Your task to perform on an android device: turn on airplane mode Image 0: 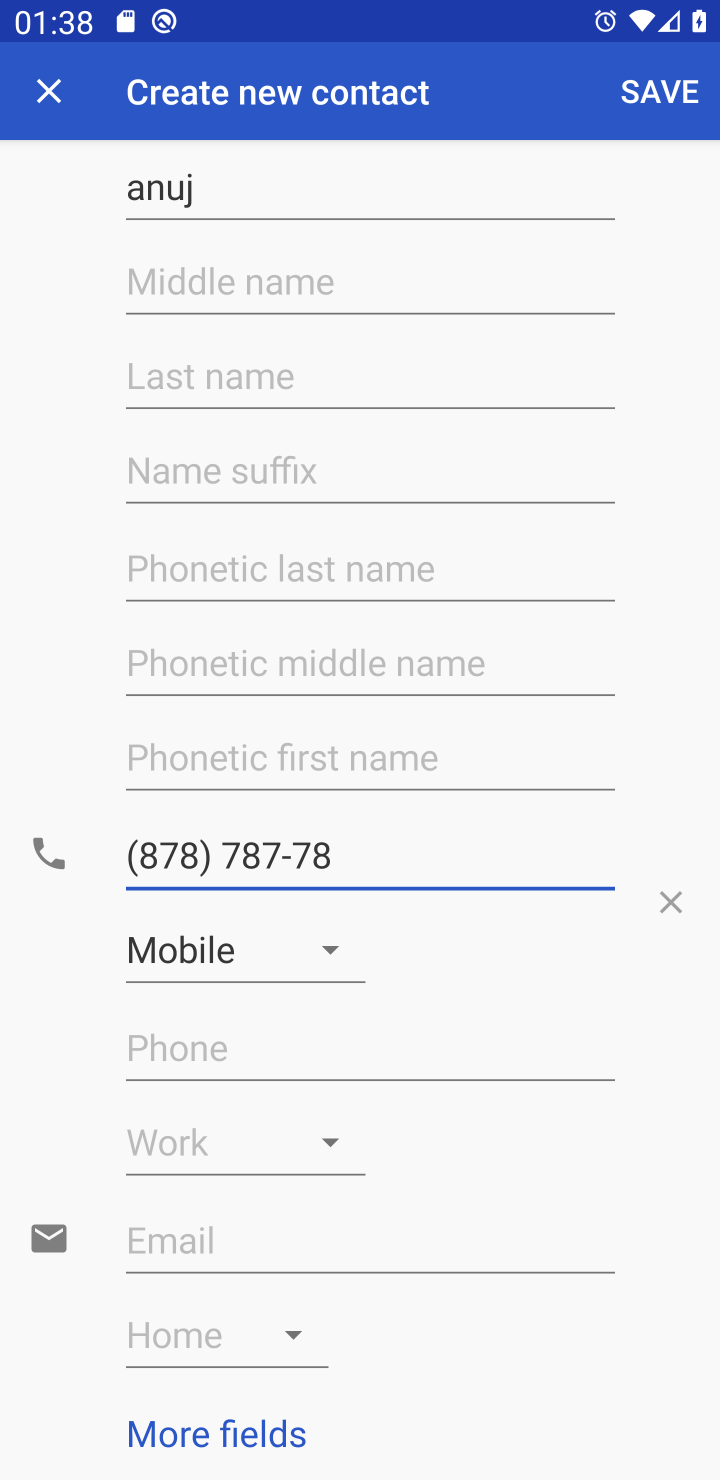
Step 0: click (76, 83)
Your task to perform on an android device: turn on airplane mode Image 1: 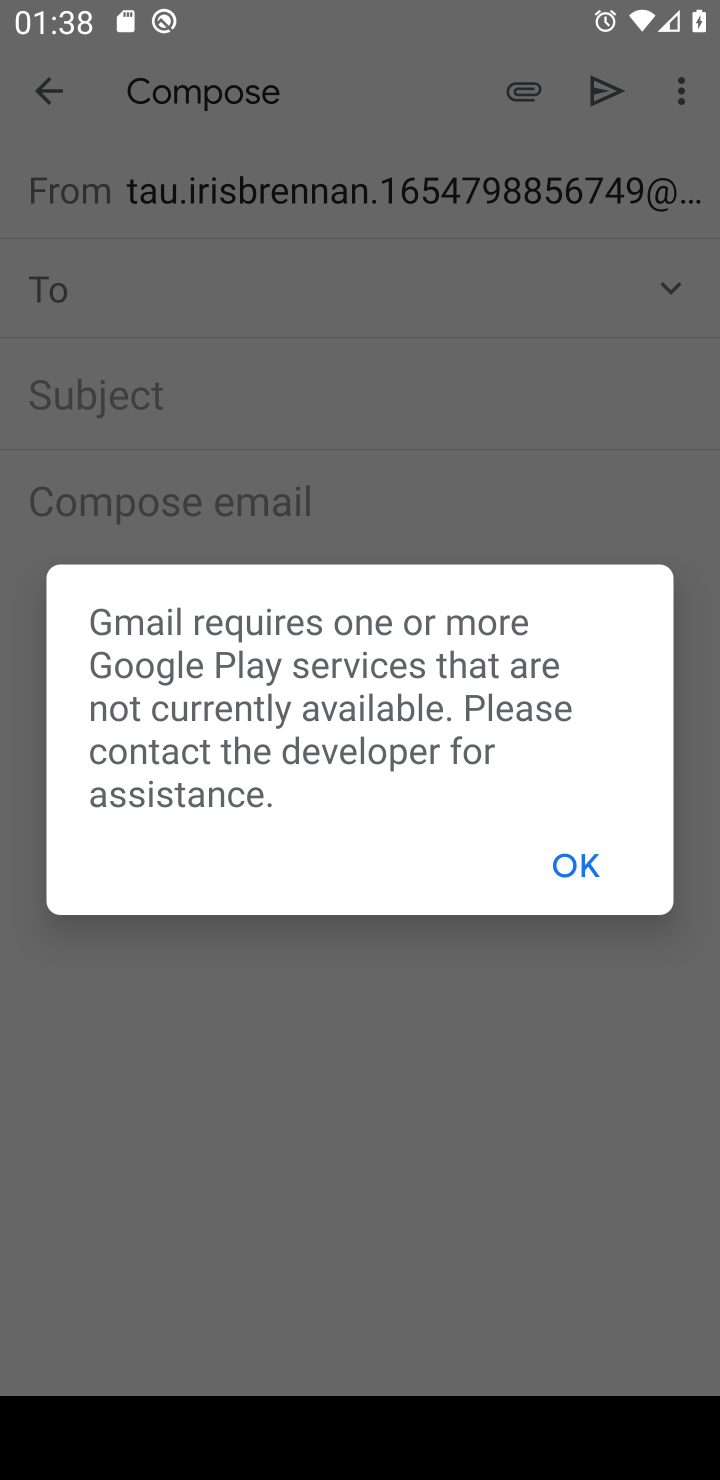
Step 1: press home button
Your task to perform on an android device: turn on airplane mode Image 2: 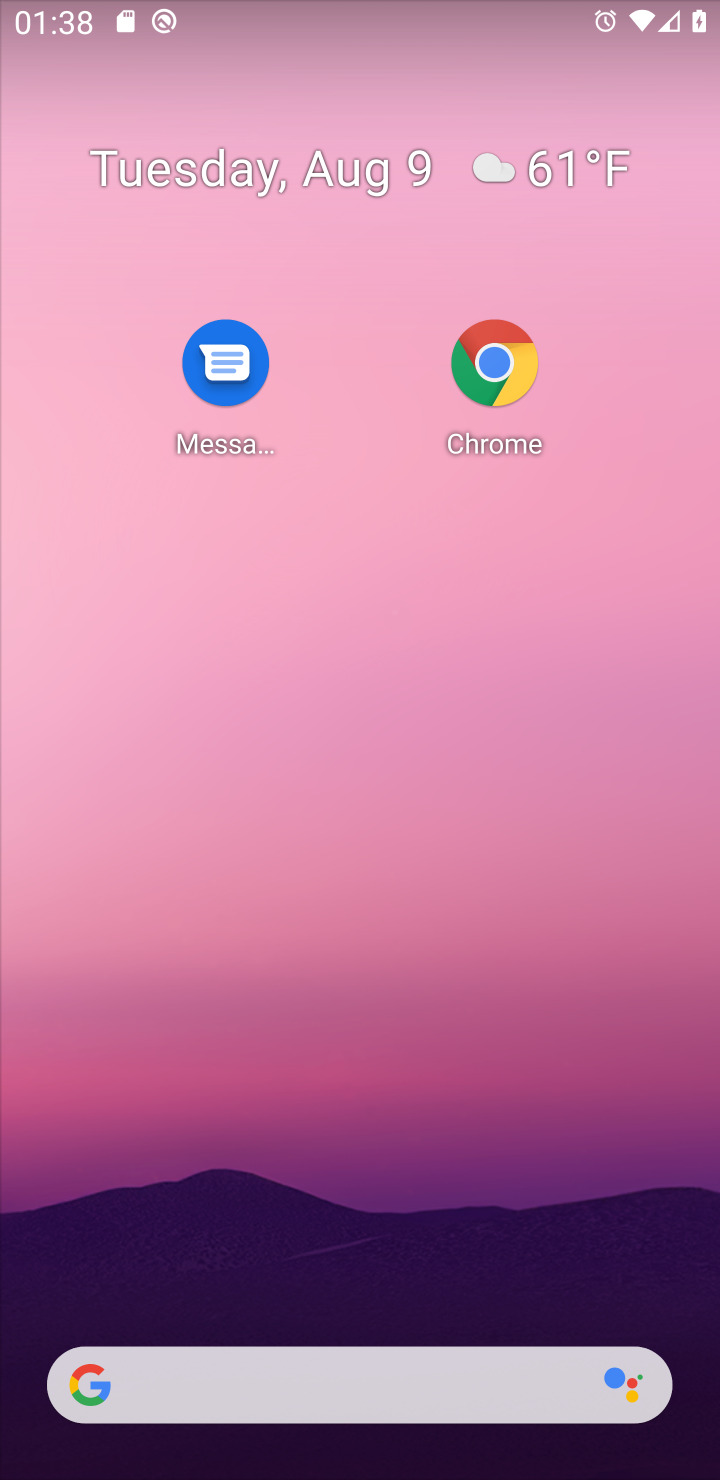
Step 2: drag from (364, 997) to (468, 281)
Your task to perform on an android device: turn on airplane mode Image 3: 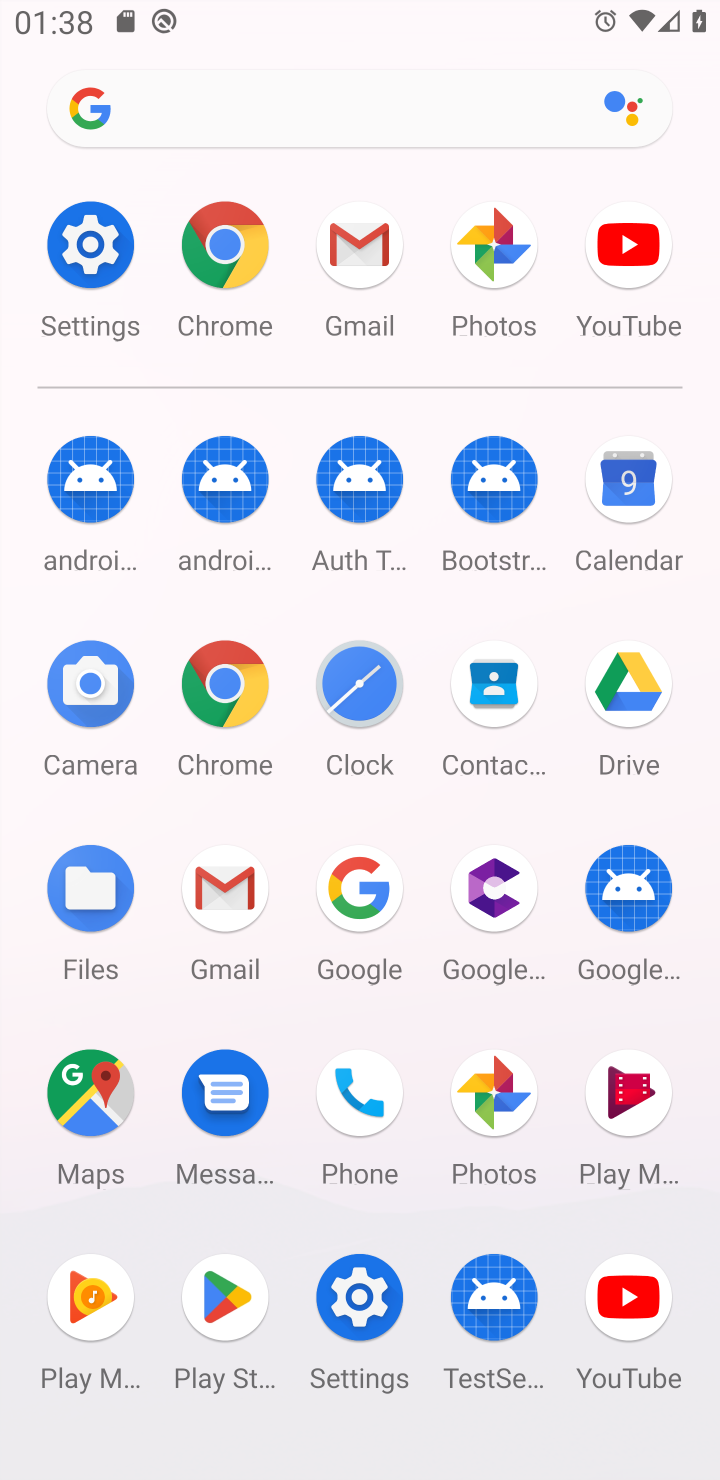
Step 3: click (87, 226)
Your task to perform on an android device: turn on airplane mode Image 4: 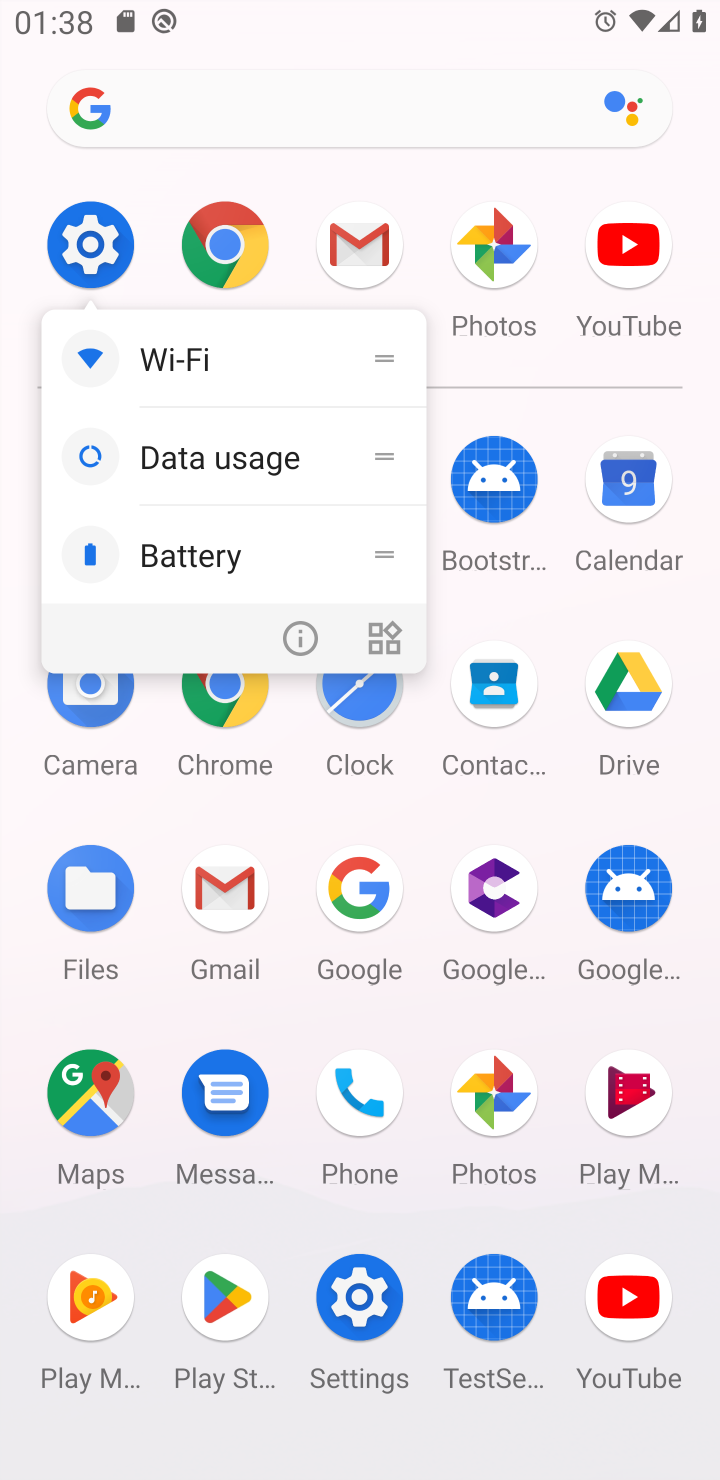
Step 4: click (95, 224)
Your task to perform on an android device: turn on airplane mode Image 5: 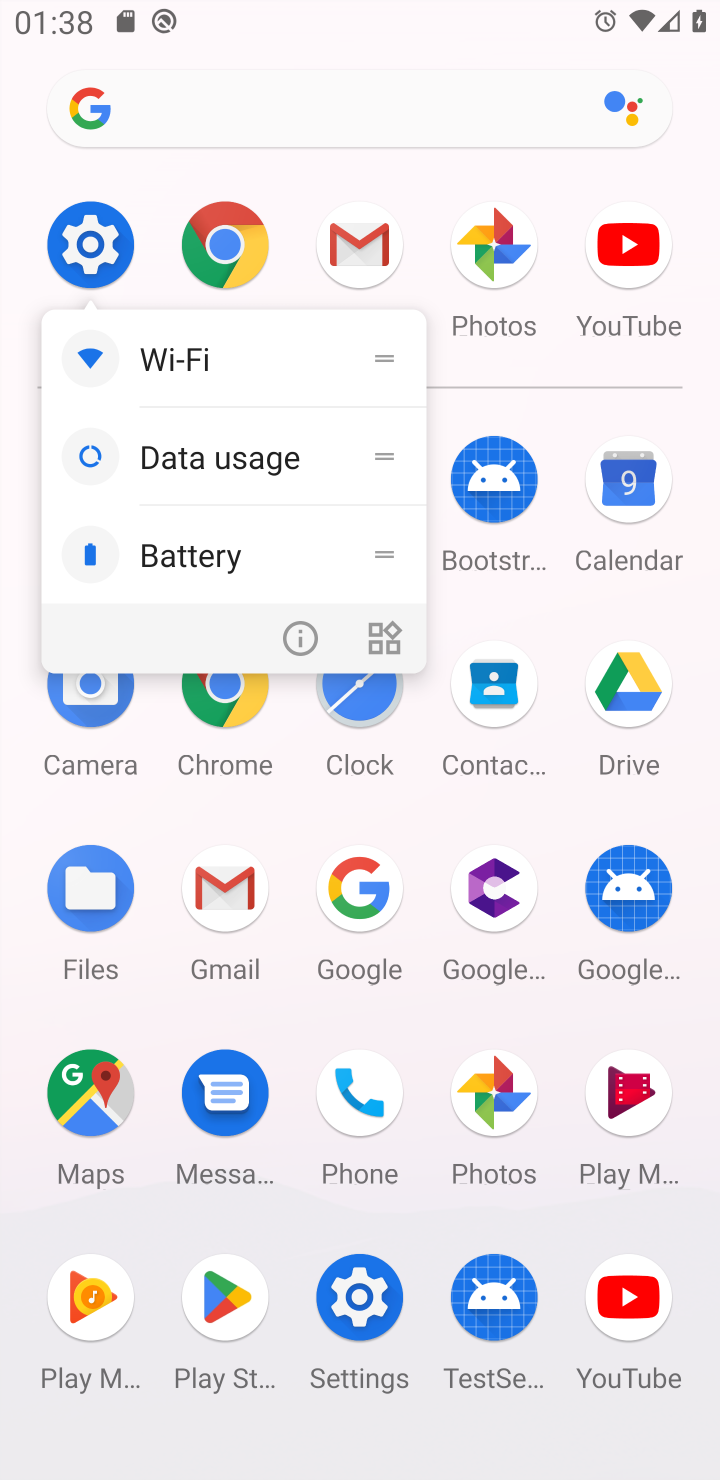
Step 5: click (96, 258)
Your task to perform on an android device: turn on airplane mode Image 6: 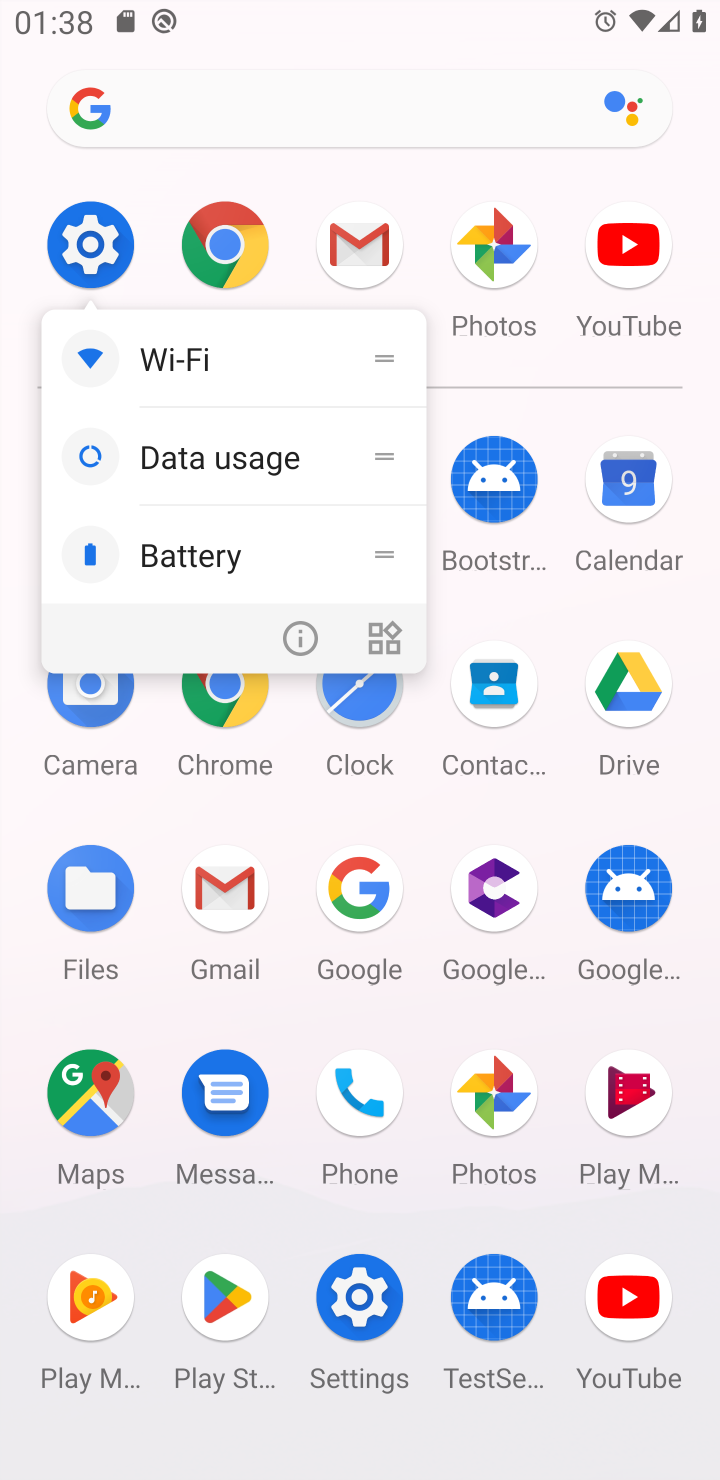
Step 6: click (96, 258)
Your task to perform on an android device: turn on airplane mode Image 7: 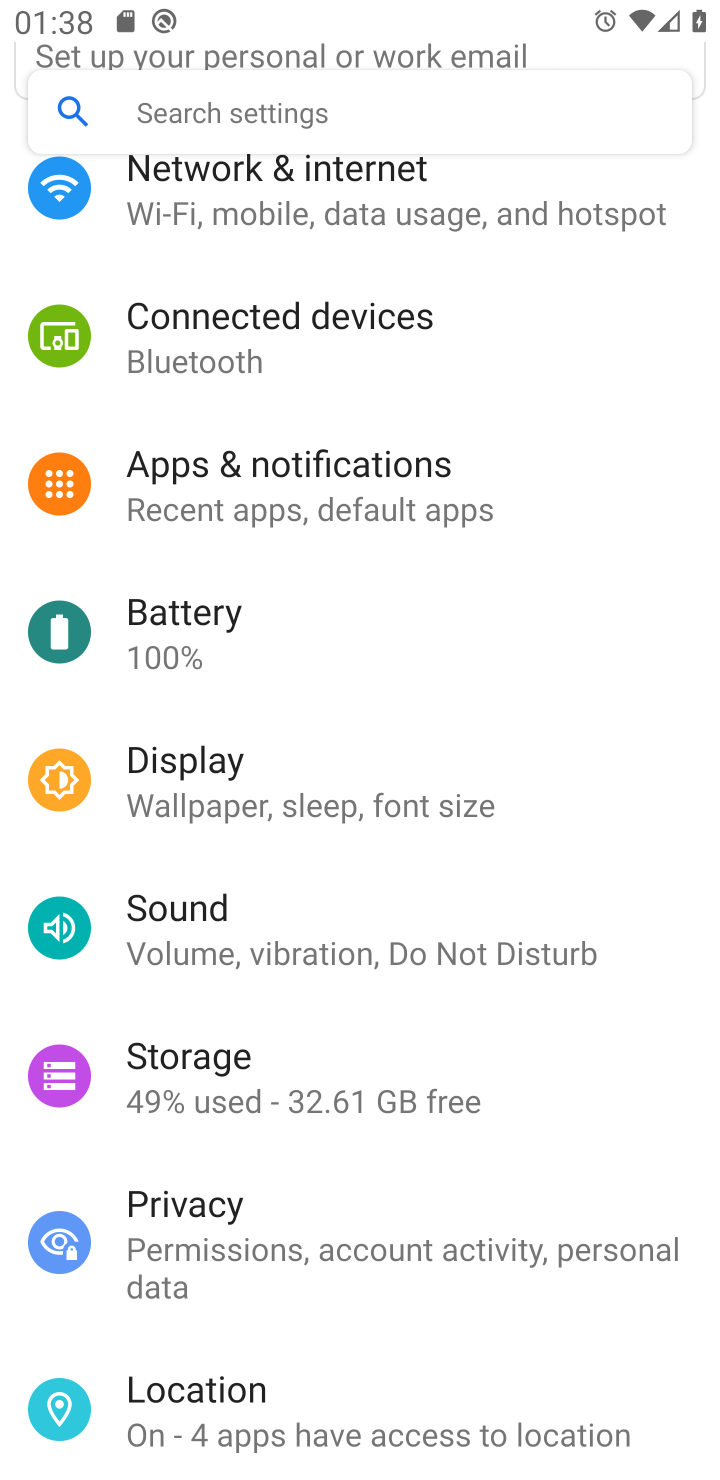
Step 7: drag from (209, 456) to (209, 1113)
Your task to perform on an android device: turn on airplane mode Image 8: 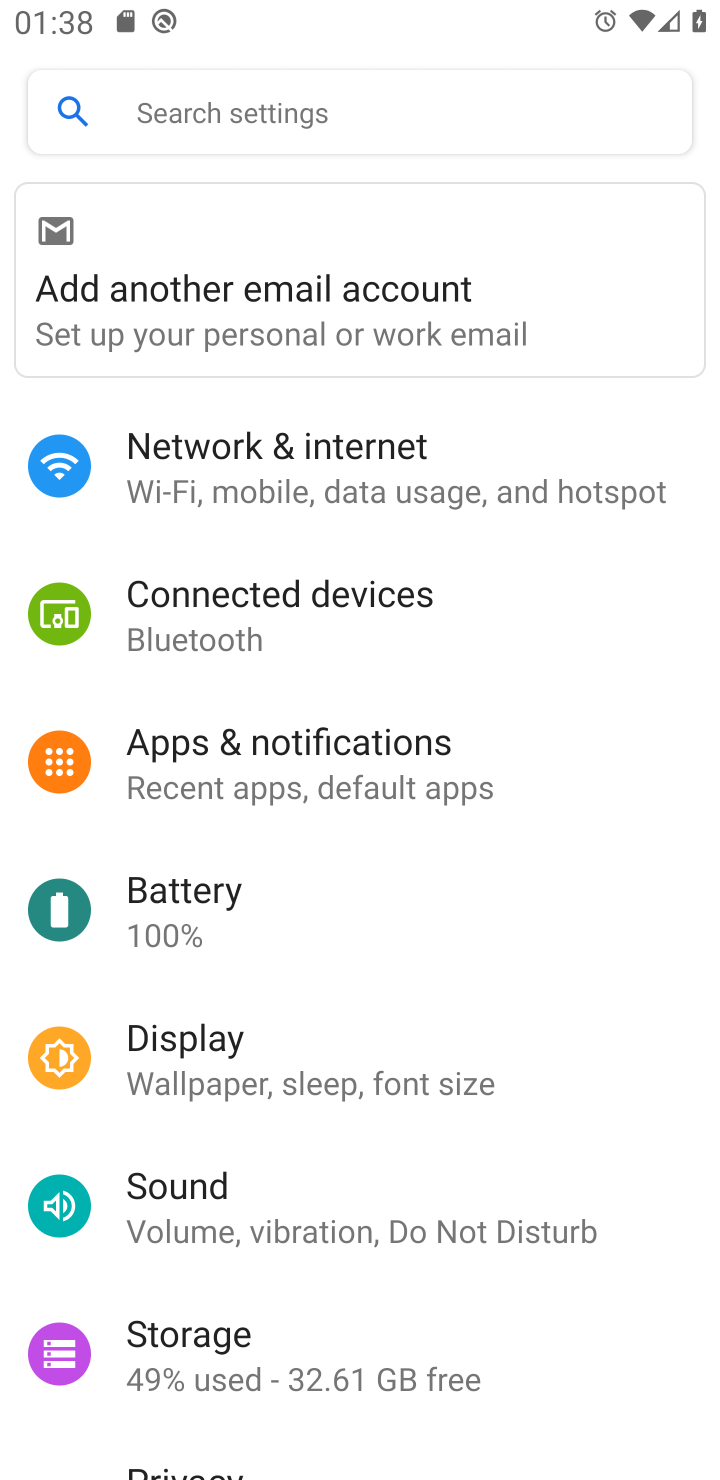
Step 8: click (227, 443)
Your task to perform on an android device: turn on airplane mode Image 9: 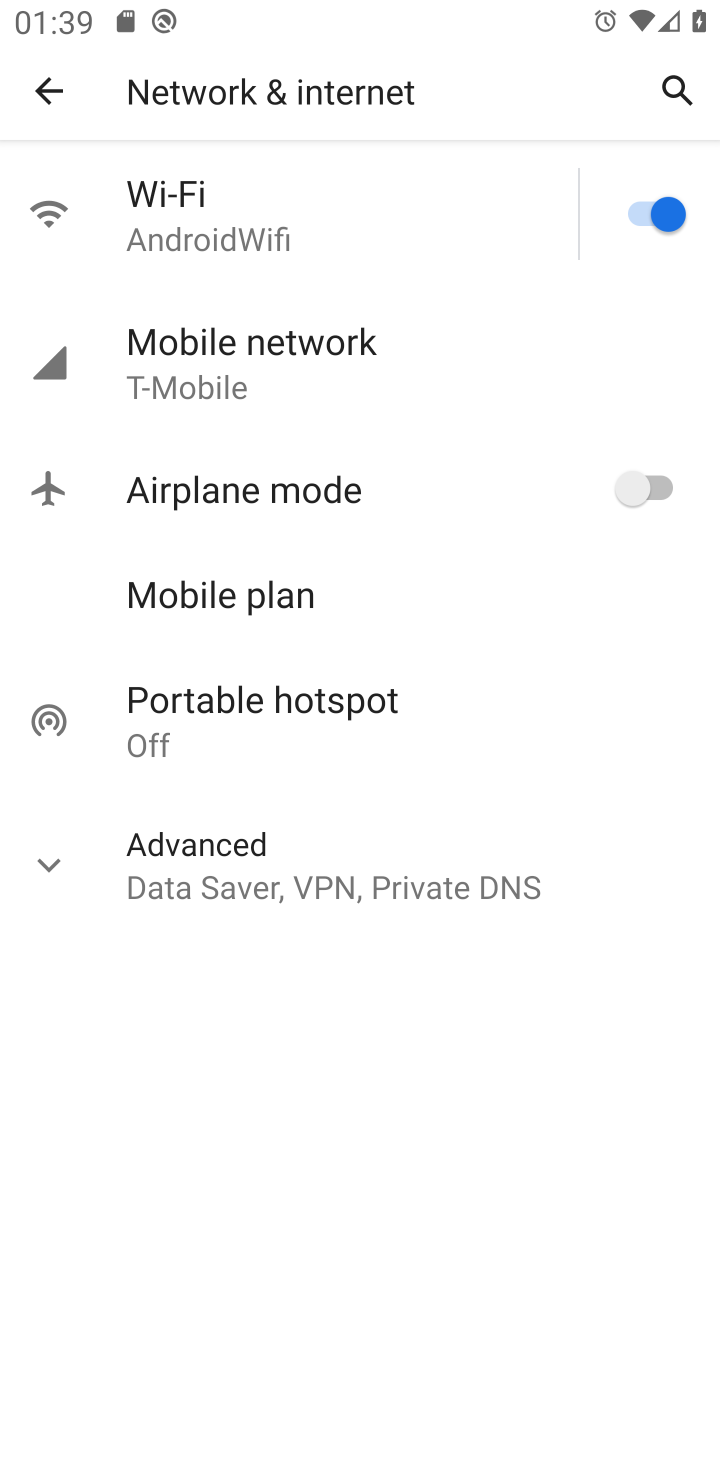
Step 9: click (598, 482)
Your task to perform on an android device: turn on airplane mode Image 10: 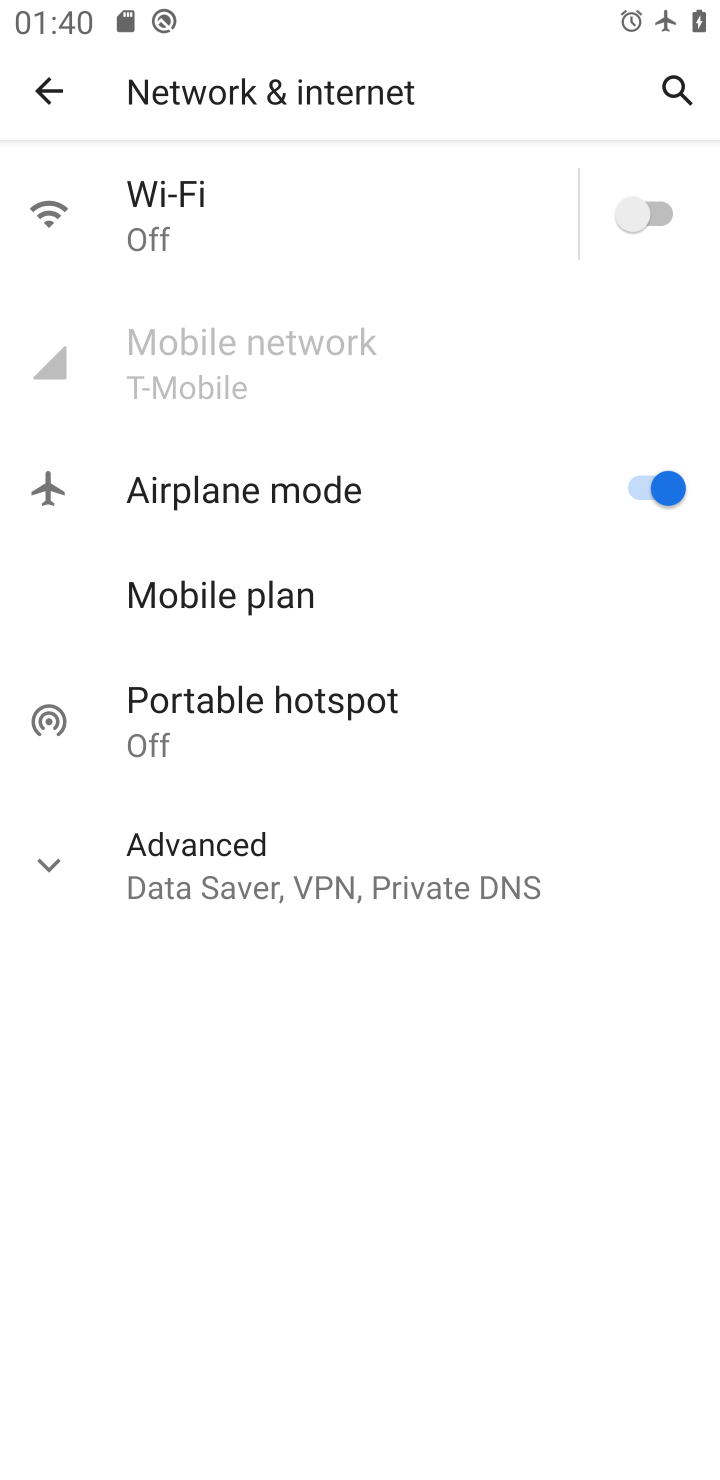
Step 10: task complete